Your task to perform on an android device: show emergency info Image 0: 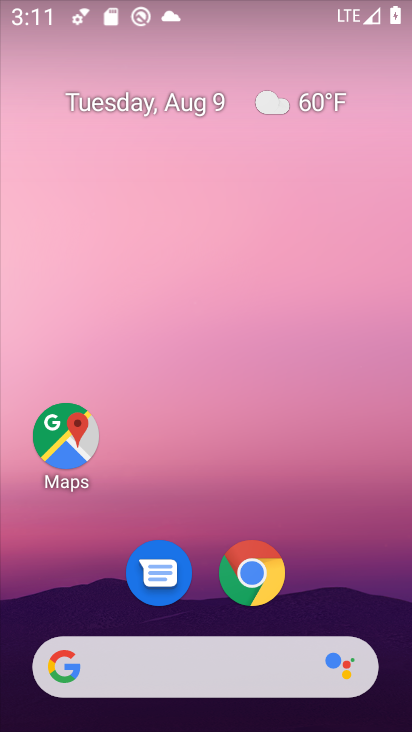
Step 0: drag from (366, 565) to (60, 154)
Your task to perform on an android device: show emergency info Image 1: 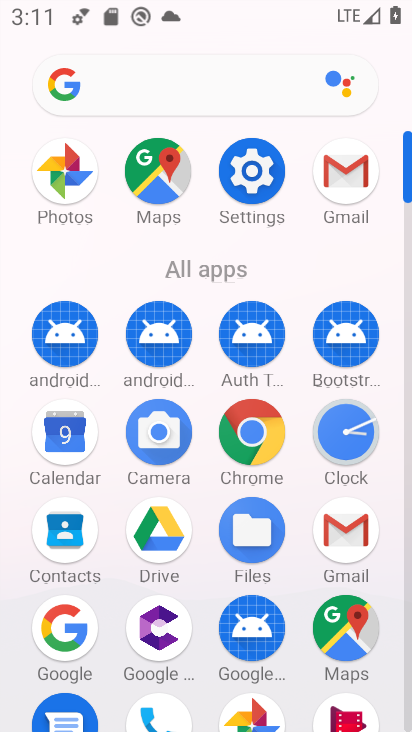
Step 1: click (260, 171)
Your task to perform on an android device: show emergency info Image 2: 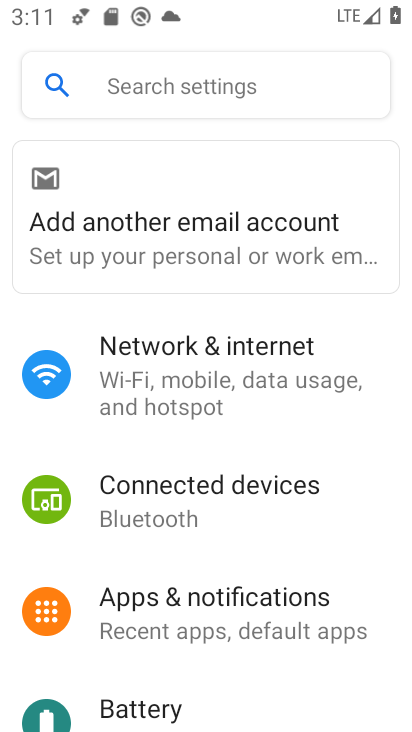
Step 2: drag from (367, 689) to (110, 142)
Your task to perform on an android device: show emergency info Image 3: 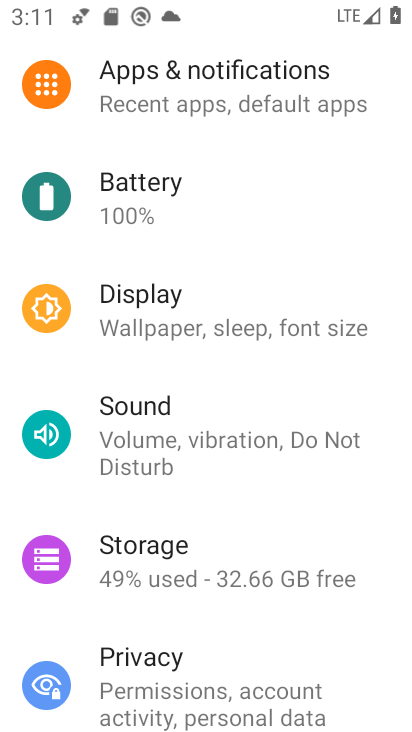
Step 3: drag from (346, 674) to (100, 244)
Your task to perform on an android device: show emergency info Image 4: 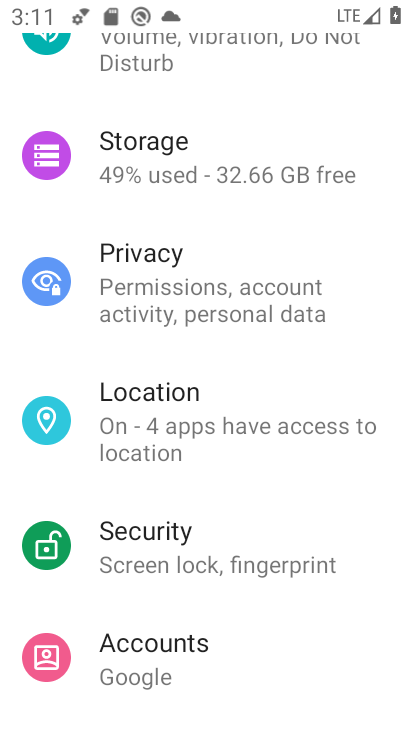
Step 4: drag from (338, 651) to (72, 246)
Your task to perform on an android device: show emergency info Image 5: 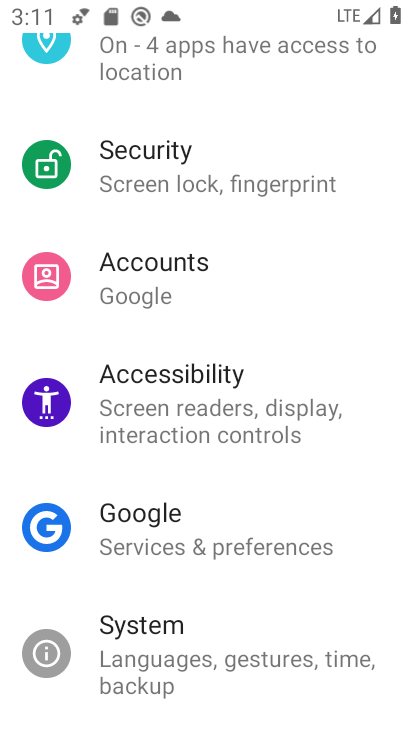
Step 5: drag from (283, 600) to (80, 227)
Your task to perform on an android device: show emergency info Image 6: 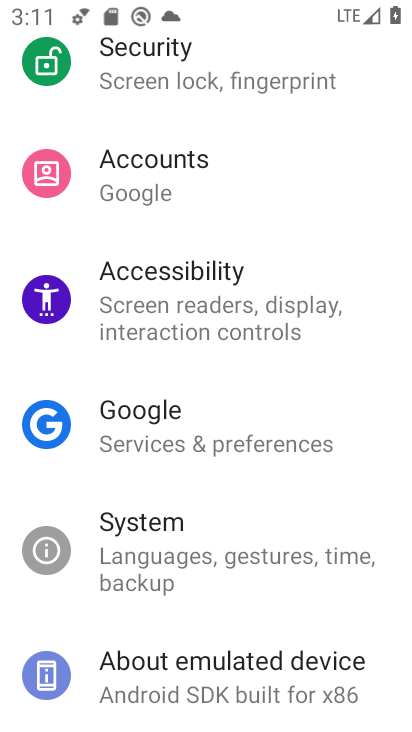
Step 6: click (278, 676)
Your task to perform on an android device: show emergency info Image 7: 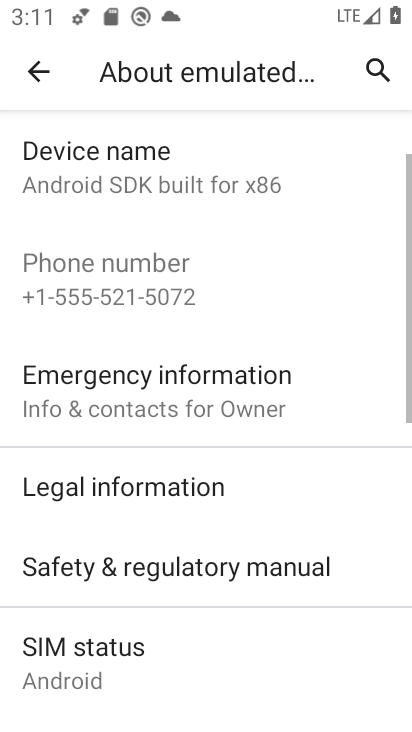
Step 7: click (129, 393)
Your task to perform on an android device: show emergency info Image 8: 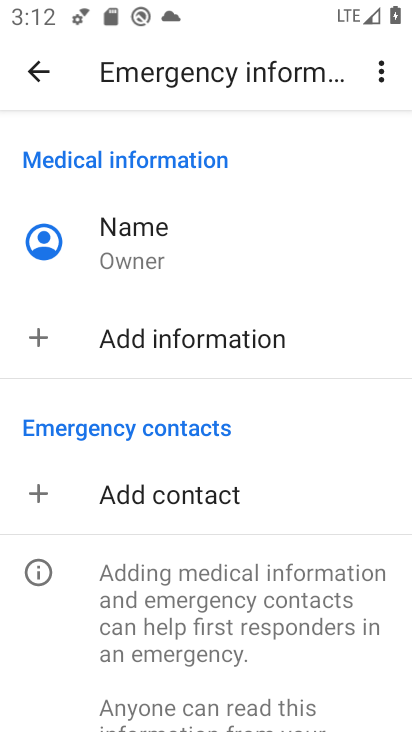
Step 8: task complete